Your task to perform on an android device: change notifications settings Image 0: 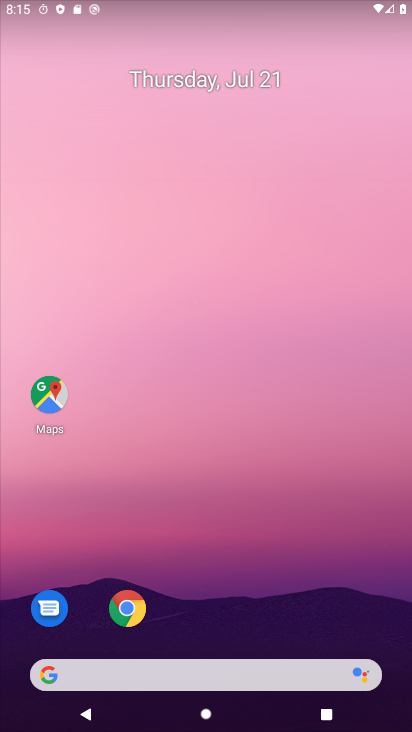
Step 0: press home button
Your task to perform on an android device: change notifications settings Image 1: 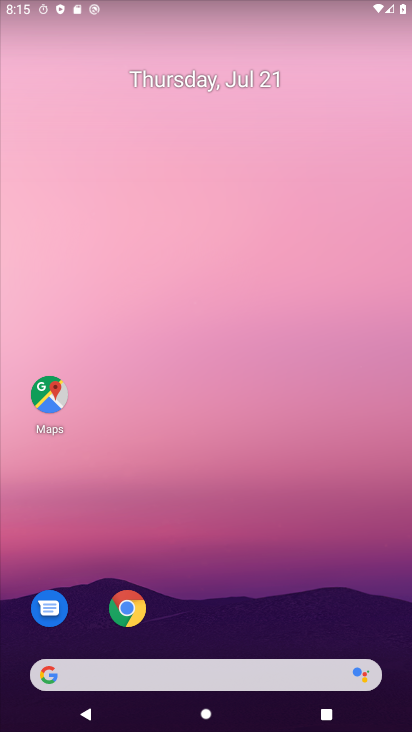
Step 1: drag from (294, 617) to (288, 68)
Your task to perform on an android device: change notifications settings Image 2: 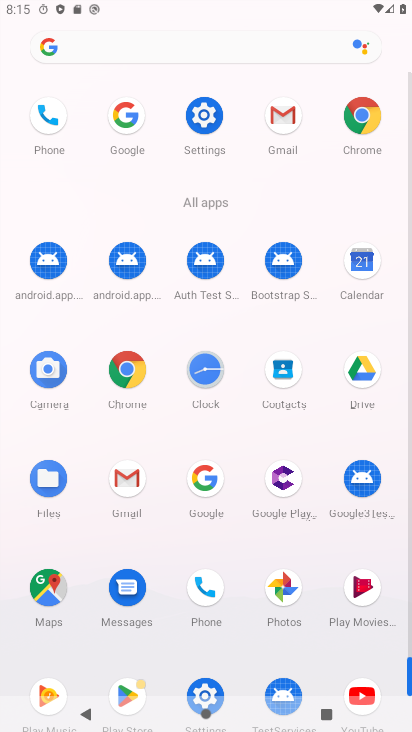
Step 2: click (191, 117)
Your task to perform on an android device: change notifications settings Image 3: 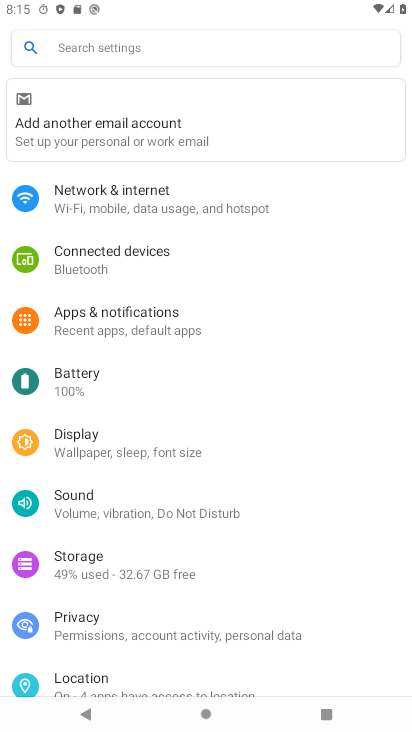
Step 3: click (92, 306)
Your task to perform on an android device: change notifications settings Image 4: 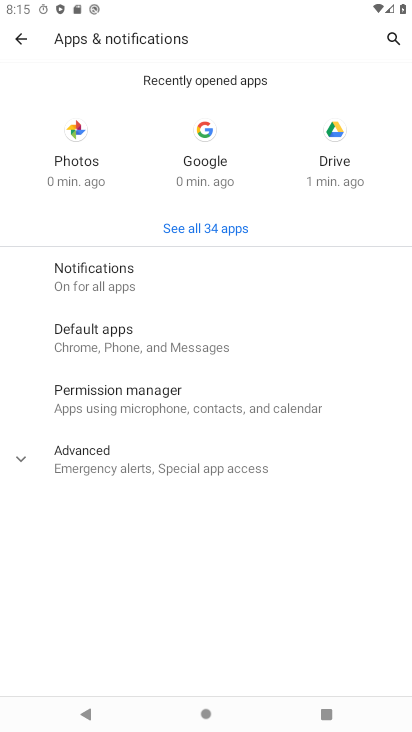
Step 4: click (73, 288)
Your task to perform on an android device: change notifications settings Image 5: 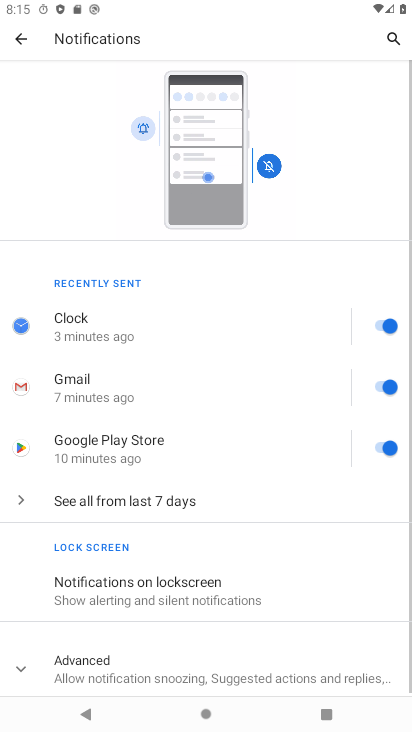
Step 5: drag from (128, 611) to (141, 397)
Your task to perform on an android device: change notifications settings Image 6: 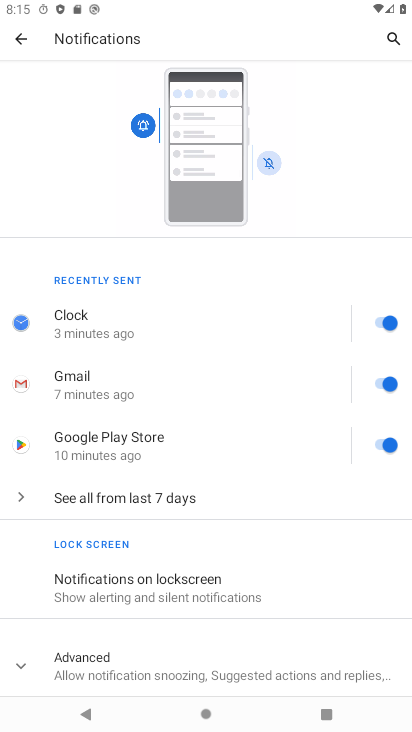
Step 6: click (26, 671)
Your task to perform on an android device: change notifications settings Image 7: 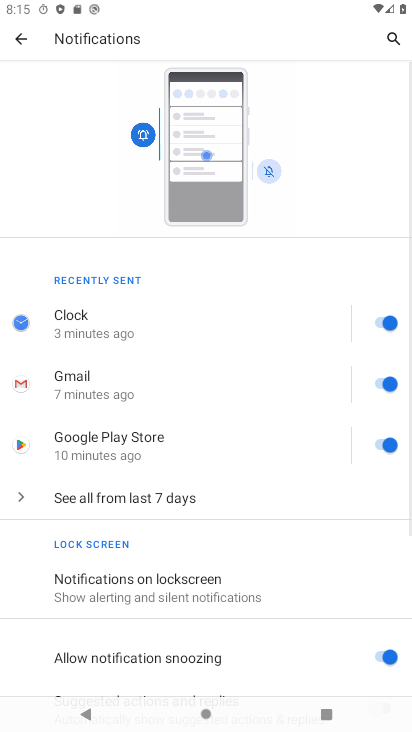
Step 7: drag from (56, 650) to (120, 187)
Your task to perform on an android device: change notifications settings Image 8: 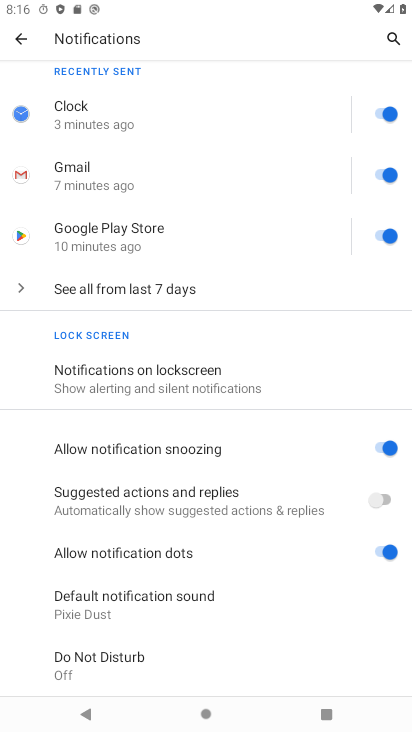
Step 8: click (140, 554)
Your task to perform on an android device: change notifications settings Image 9: 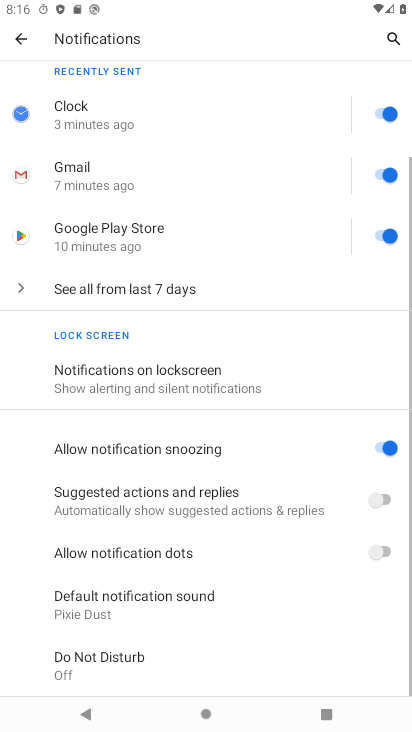
Step 9: click (160, 450)
Your task to perform on an android device: change notifications settings Image 10: 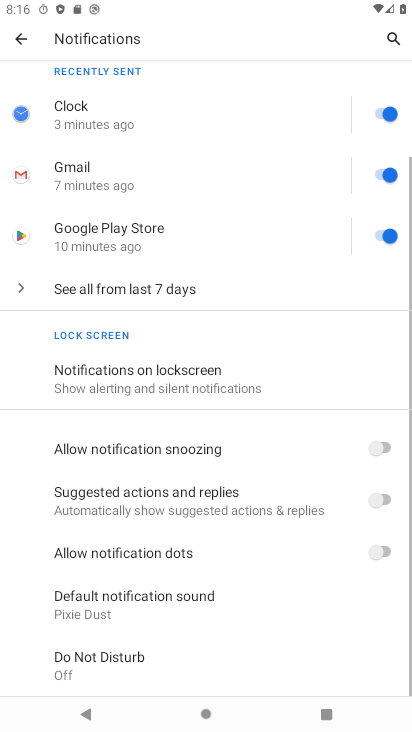
Step 10: click (160, 486)
Your task to perform on an android device: change notifications settings Image 11: 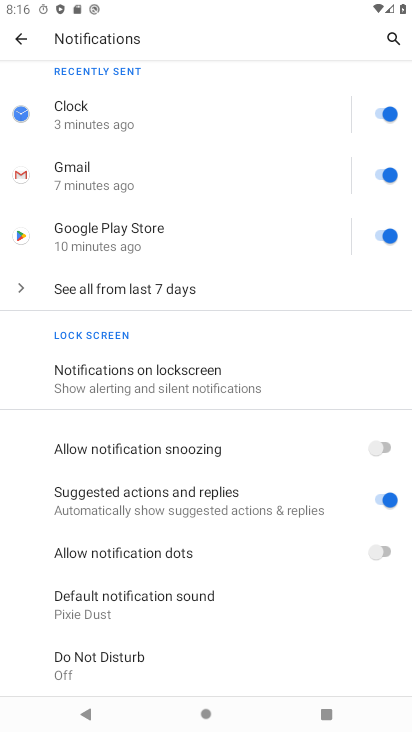
Step 11: task complete